Your task to perform on an android device: set the timer Image 0: 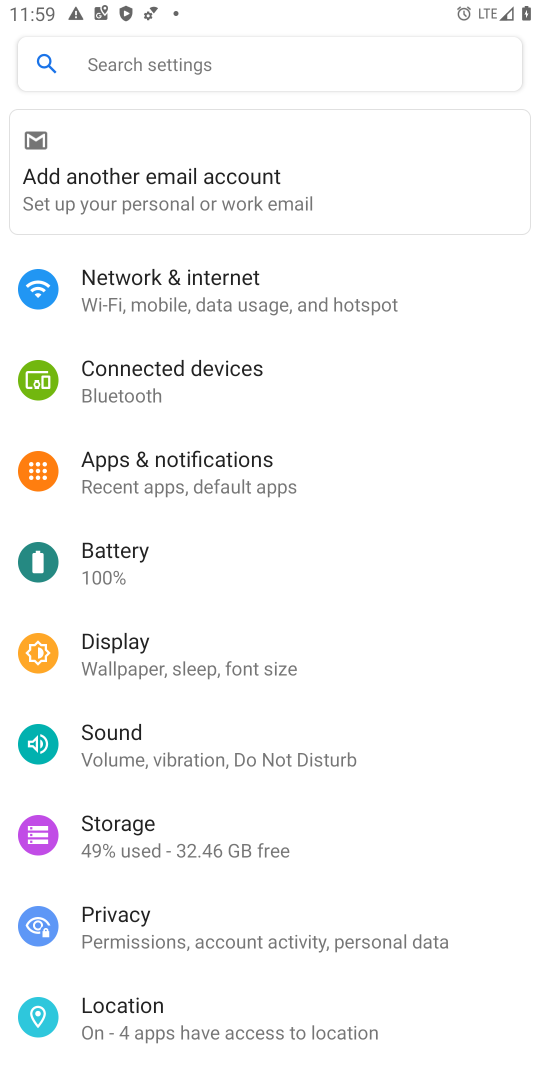
Step 0: press home button
Your task to perform on an android device: set the timer Image 1: 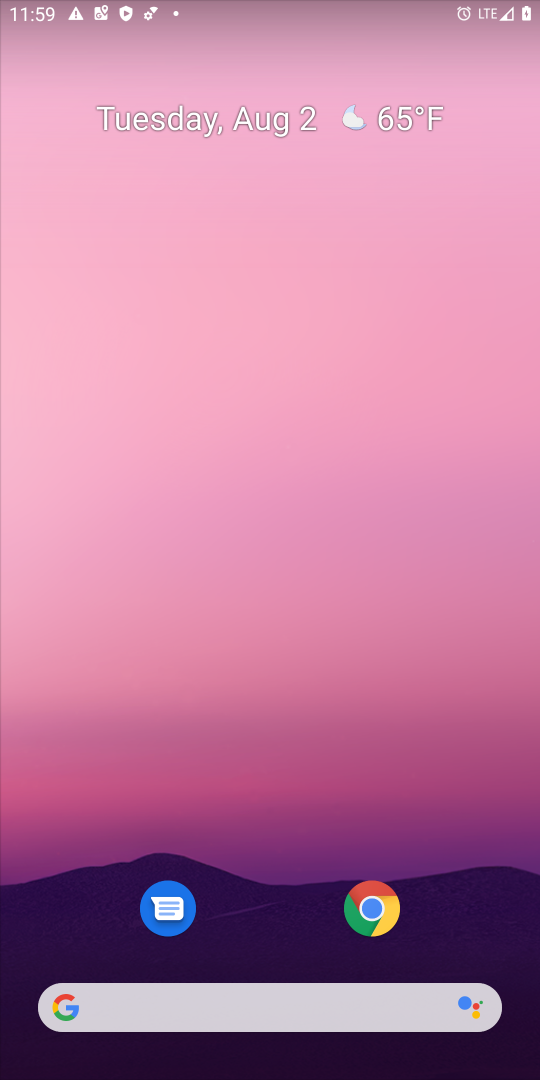
Step 1: drag from (252, 896) to (410, 0)
Your task to perform on an android device: set the timer Image 2: 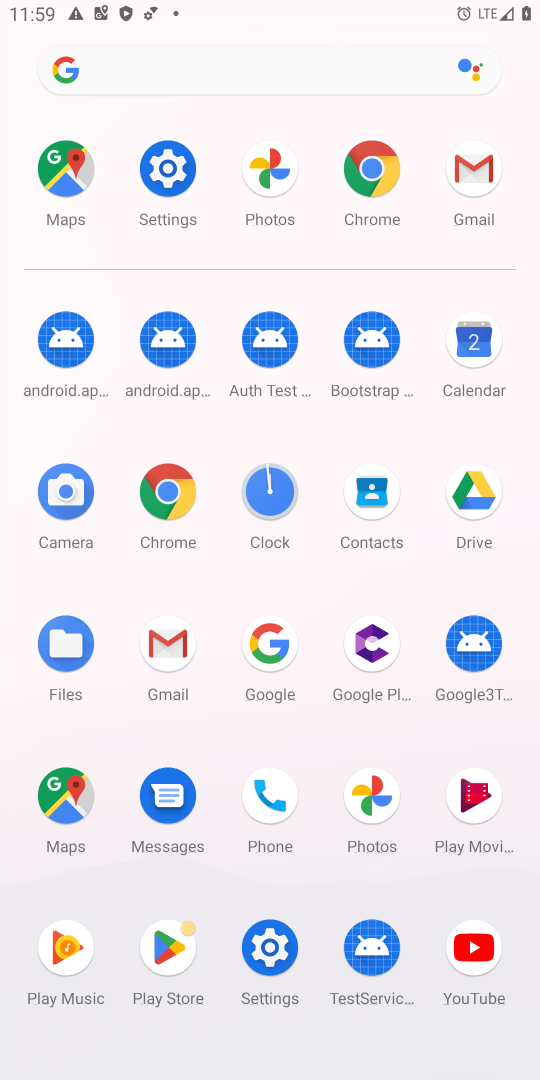
Step 2: click (279, 500)
Your task to perform on an android device: set the timer Image 3: 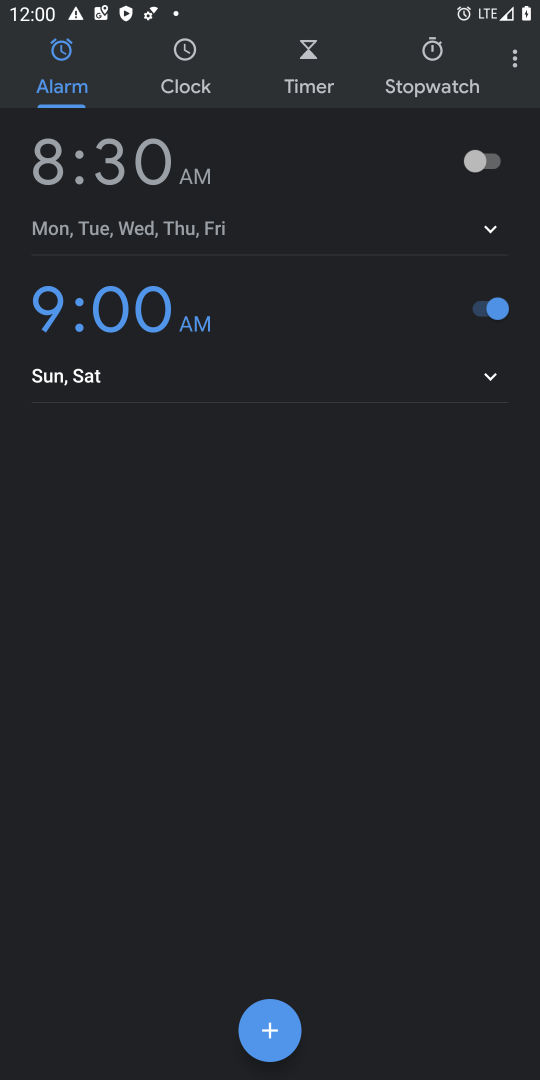
Step 3: click (308, 71)
Your task to perform on an android device: set the timer Image 4: 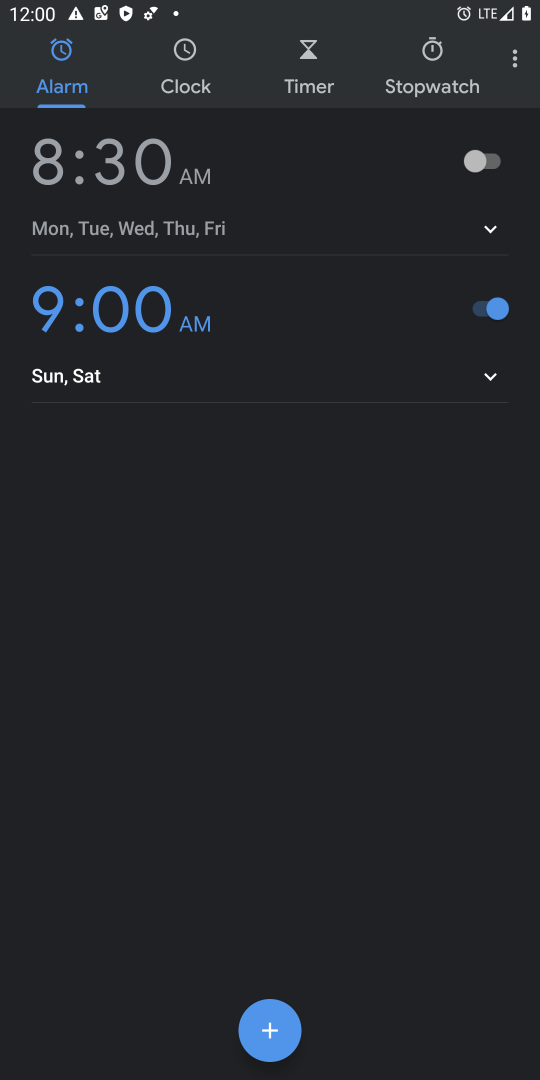
Step 4: click (279, 71)
Your task to perform on an android device: set the timer Image 5: 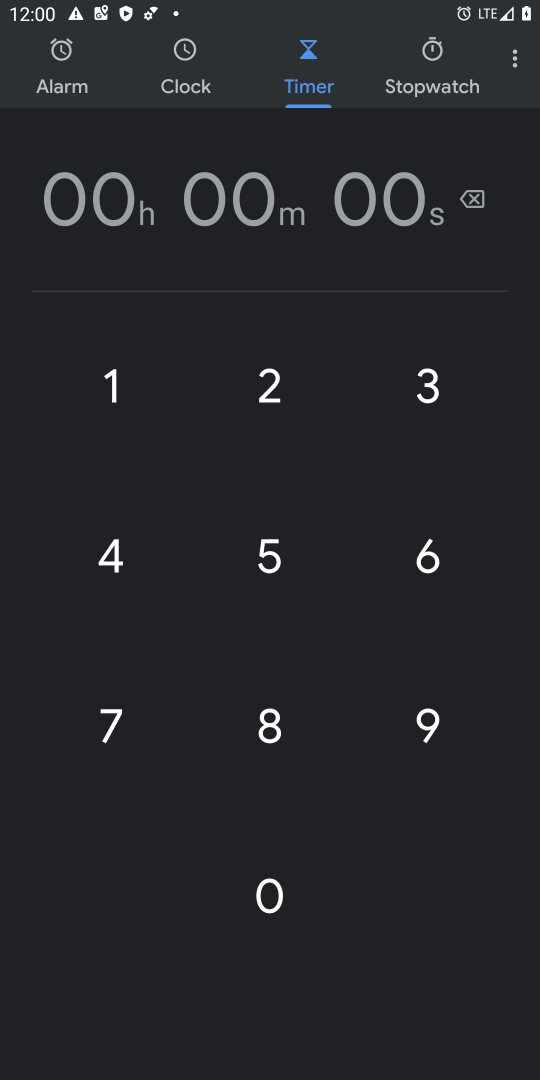
Step 5: click (293, 403)
Your task to perform on an android device: set the timer Image 6: 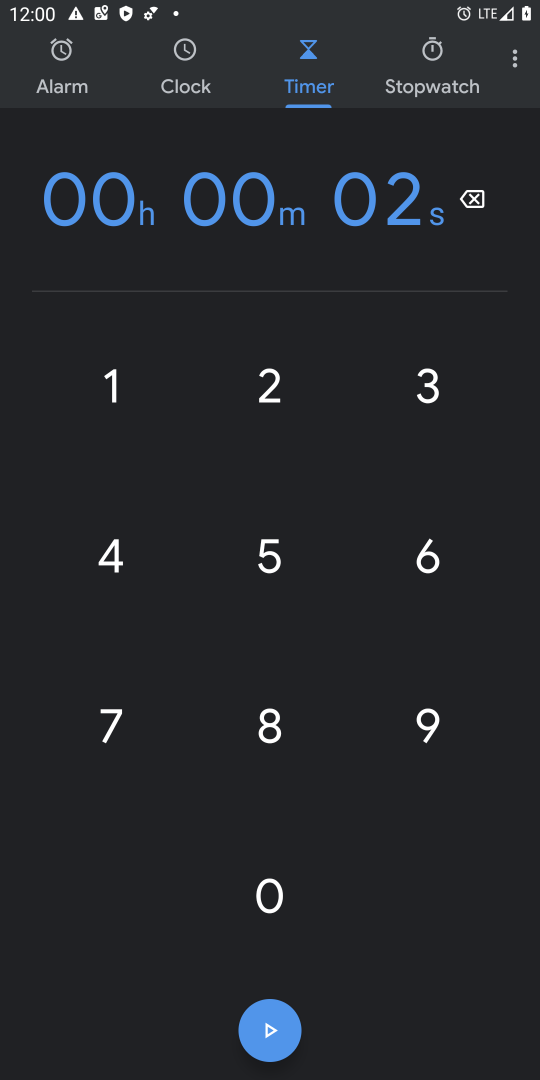
Step 6: click (274, 1033)
Your task to perform on an android device: set the timer Image 7: 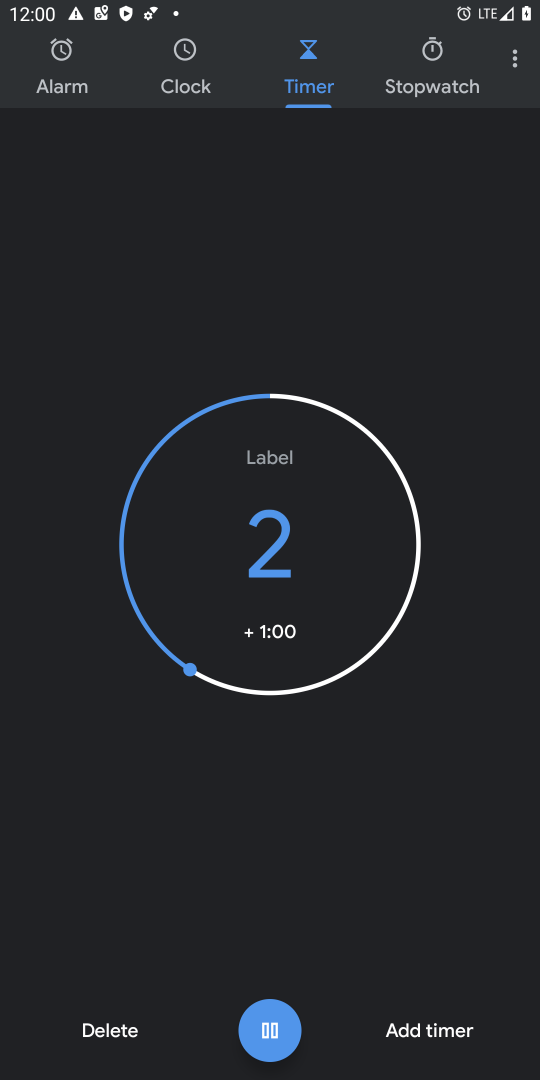
Step 7: task complete